Your task to perform on an android device: set an alarm Image 0: 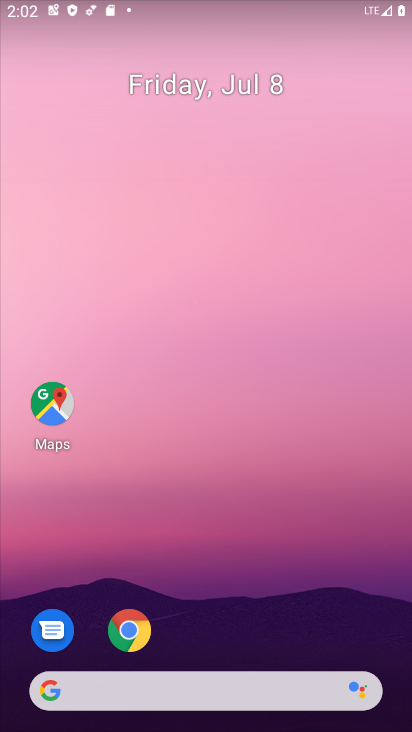
Step 0: press home button
Your task to perform on an android device: set an alarm Image 1: 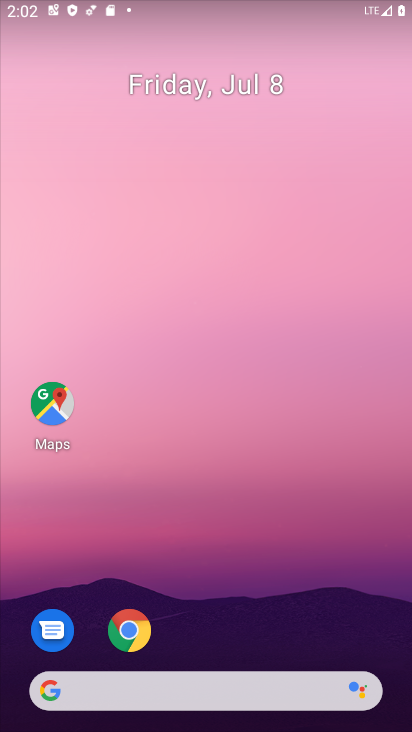
Step 1: drag from (210, 650) to (267, 89)
Your task to perform on an android device: set an alarm Image 2: 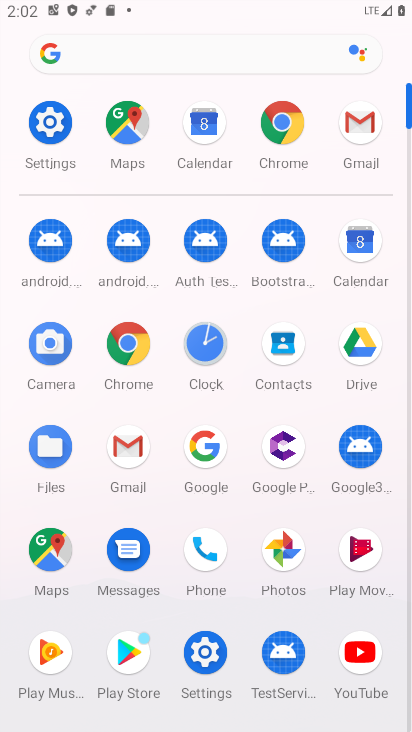
Step 2: click (205, 334)
Your task to perform on an android device: set an alarm Image 3: 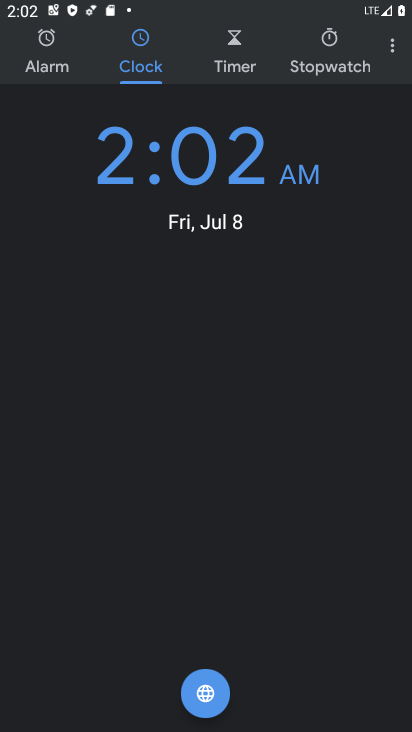
Step 3: click (47, 43)
Your task to perform on an android device: set an alarm Image 4: 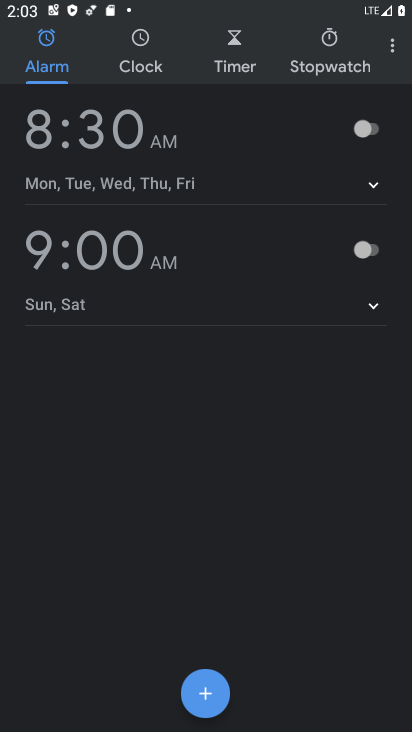
Step 4: click (366, 125)
Your task to perform on an android device: set an alarm Image 5: 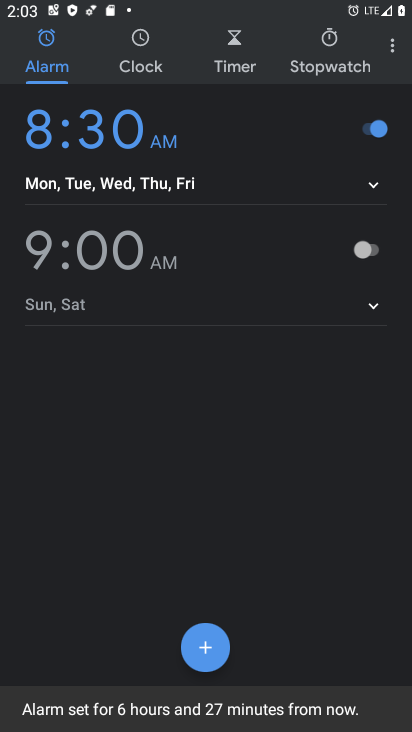
Step 5: click (371, 251)
Your task to perform on an android device: set an alarm Image 6: 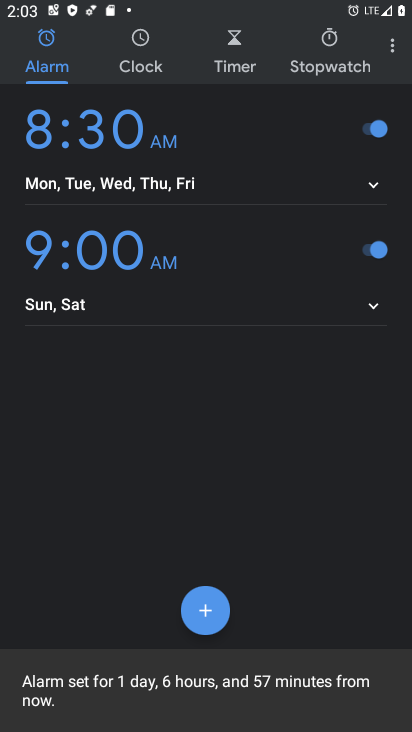
Step 6: task complete